Your task to perform on an android device: all mails in gmail Image 0: 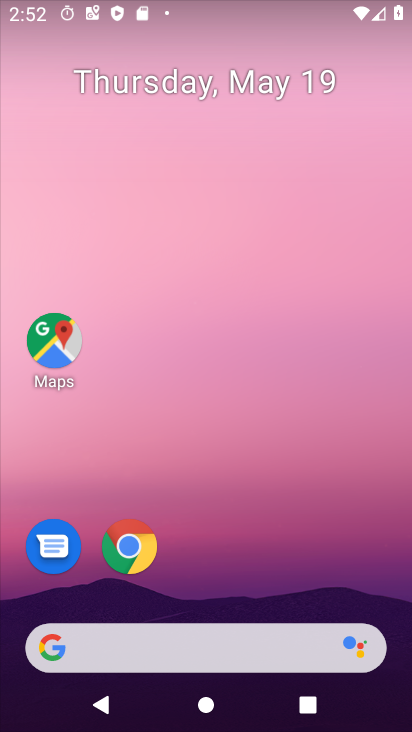
Step 0: drag from (164, 601) to (259, 92)
Your task to perform on an android device: all mails in gmail Image 1: 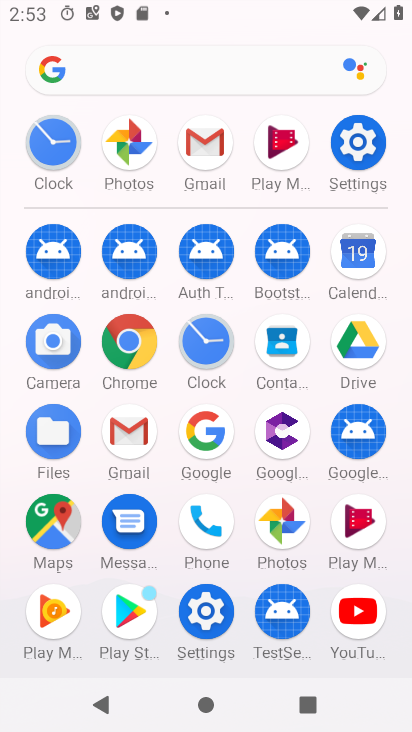
Step 1: click (195, 151)
Your task to perform on an android device: all mails in gmail Image 2: 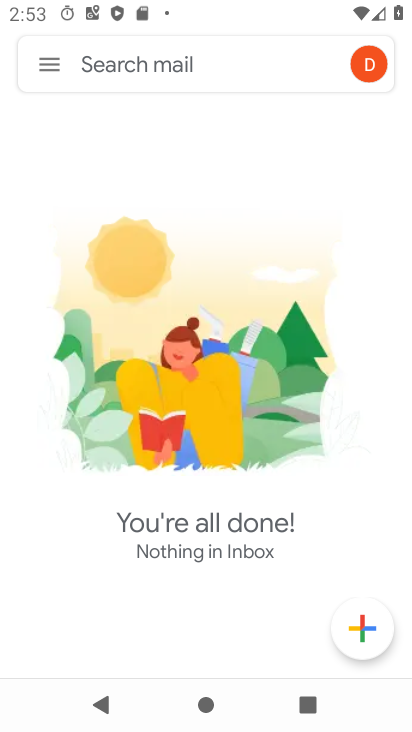
Step 2: task complete